Your task to perform on an android device: Go to Google Image 0: 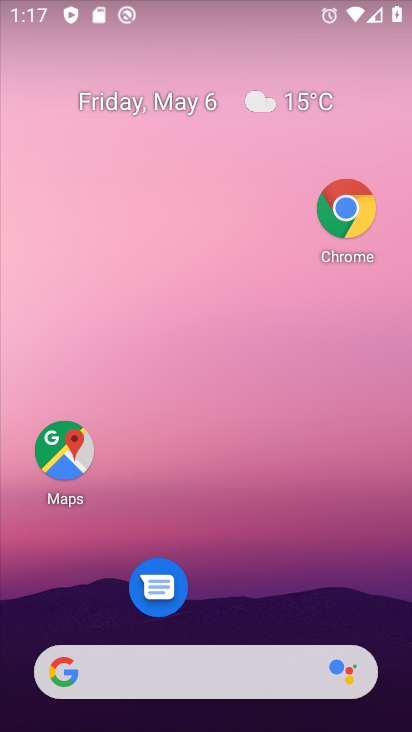
Step 0: drag from (278, 321) to (263, 86)
Your task to perform on an android device: Go to Google Image 1: 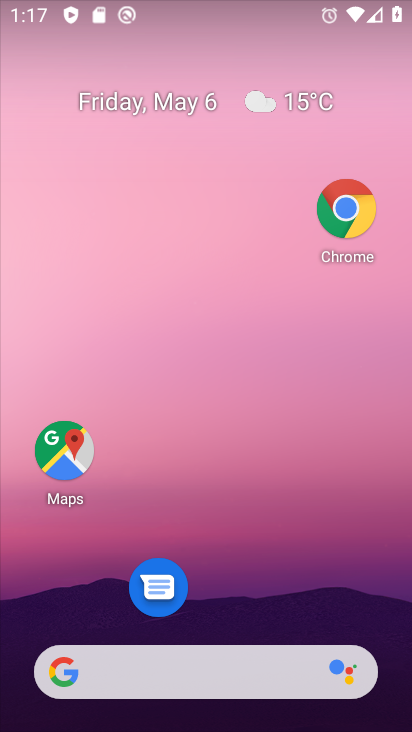
Step 1: drag from (218, 508) to (248, 7)
Your task to perform on an android device: Go to Google Image 2: 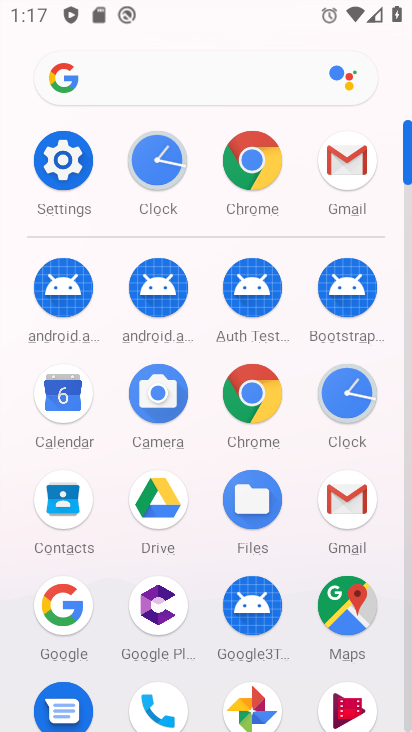
Step 2: click (60, 623)
Your task to perform on an android device: Go to Google Image 3: 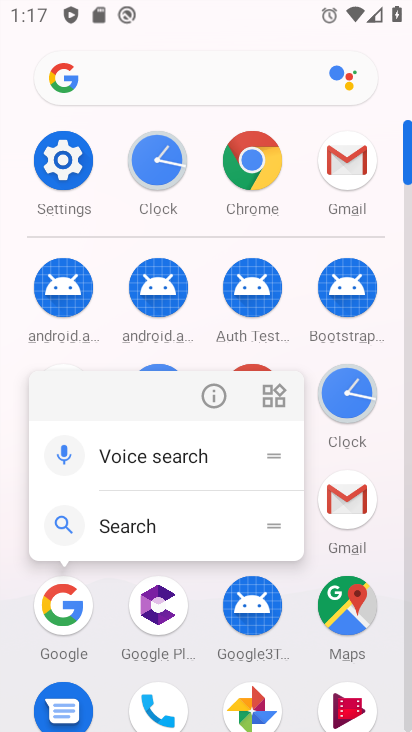
Step 3: click (80, 647)
Your task to perform on an android device: Go to Google Image 4: 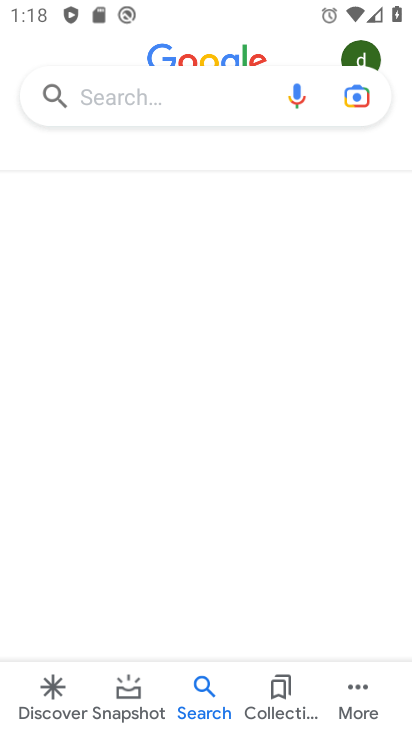
Step 4: task complete